Your task to perform on an android device: turn smart compose on in the gmail app Image 0: 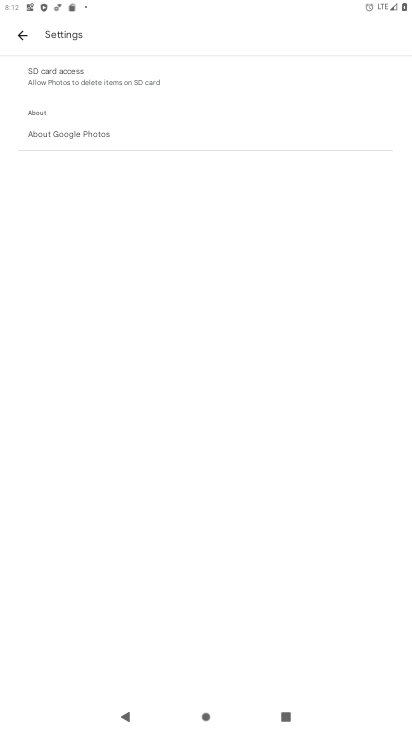
Step 0: press home button
Your task to perform on an android device: turn smart compose on in the gmail app Image 1: 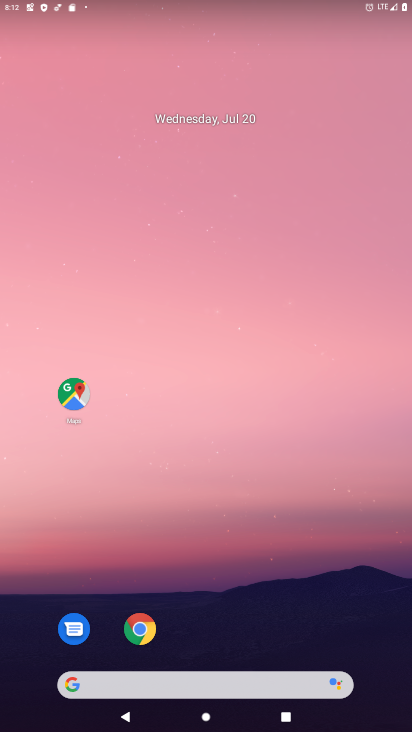
Step 1: drag from (212, 617) to (213, 86)
Your task to perform on an android device: turn smart compose on in the gmail app Image 2: 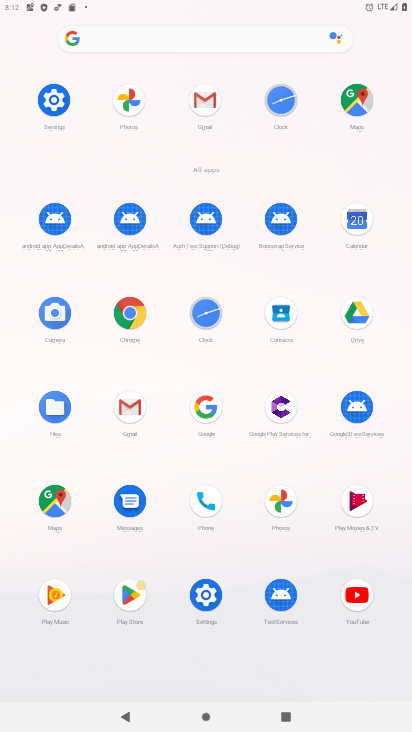
Step 2: click (135, 415)
Your task to perform on an android device: turn smart compose on in the gmail app Image 3: 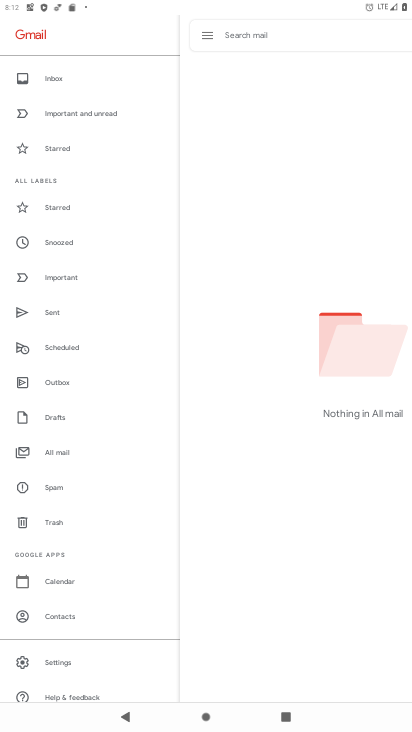
Step 3: click (61, 663)
Your task to perform on an android device: turn smart compose on in the gmail app Image 4: 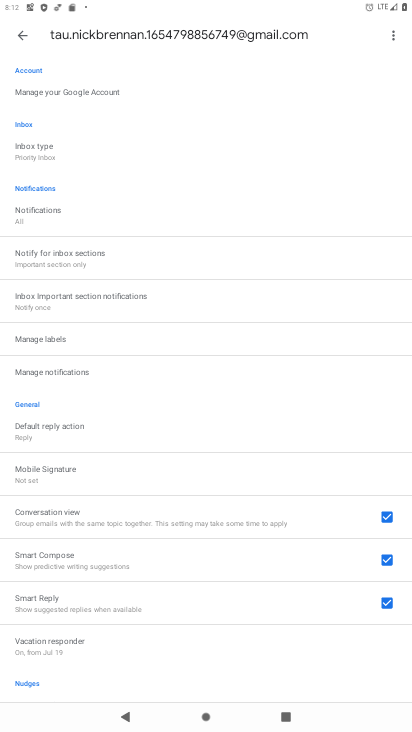
Step 4: task complete